Your task to perform on an android device: Go to internet settings Image 0: 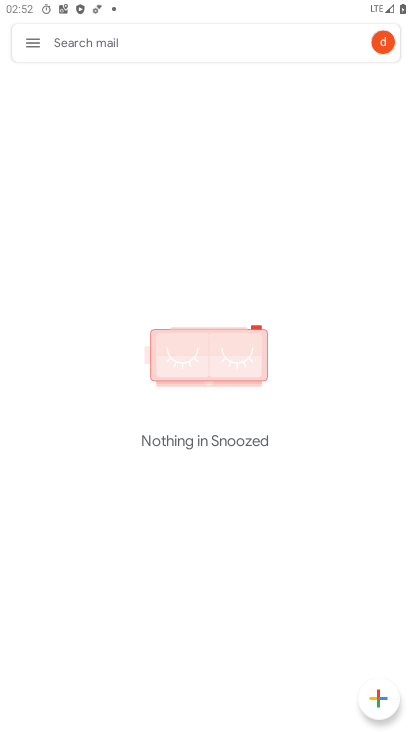
Step 0: press home button
Your task to perform on an android device: Go to internet settings Image 1: 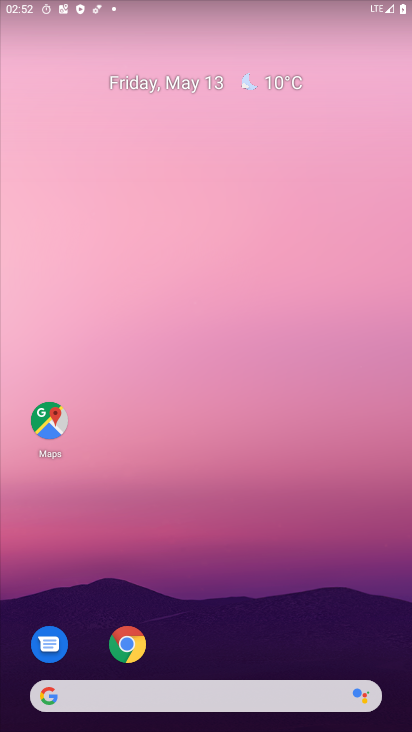
Step 1: drag from (272, 641) to (359, 0)
Your task to perform on an android device: Go to internet settings Image 2: 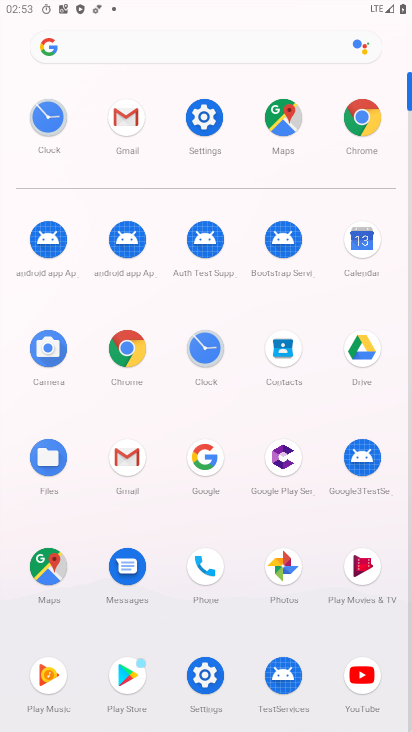
Step 2: click (204, 120)
Your task to perform on an android device: Go to internet settings Image 3: 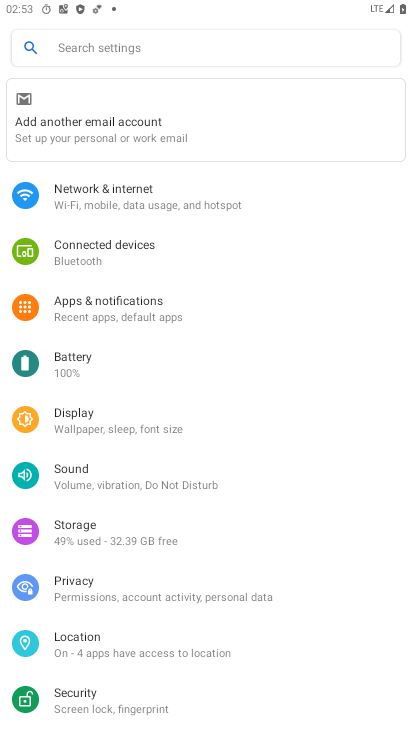
Step 3: click (186, 208)
Your task to perform on an android device: Go to internet settings Image 4: 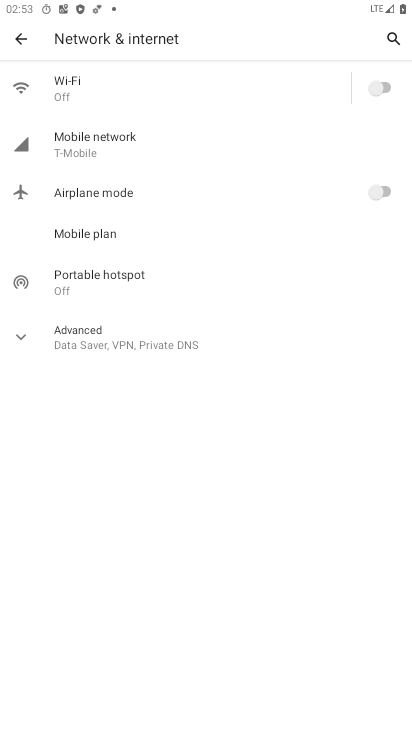
Step 4: task complete